Your task to perform on an android device: Open the Play Movies app and select the watchlist tab. Image 0: 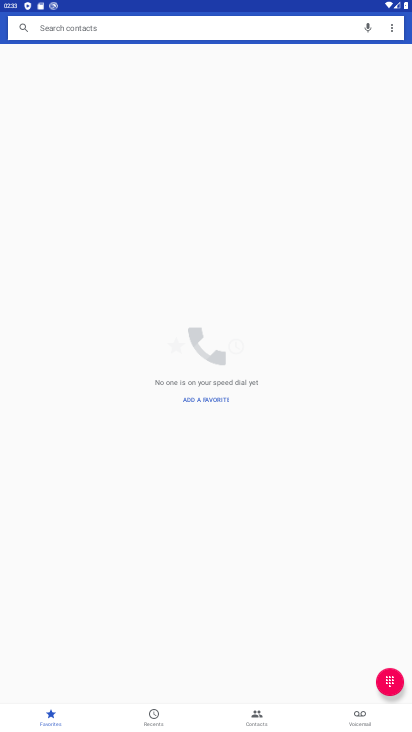
Step 0: press home button
Your task to perform on an android device: Open the Play Movies app and select the watchlist tab. Image 1: 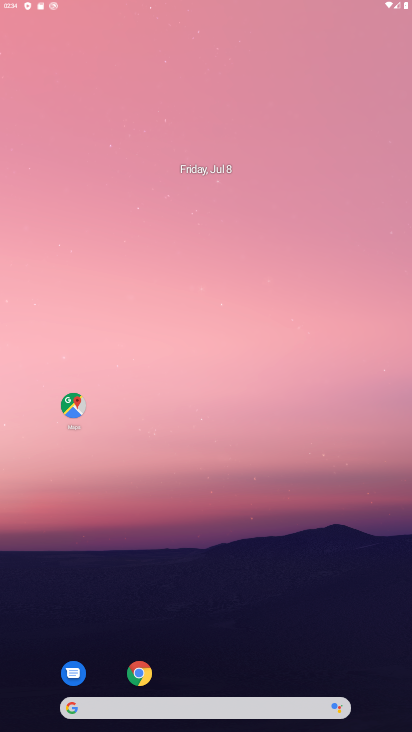
Step 1: drag from (226, 614) to (264, 107)
Your task to perform on an android device: Open the Play Movies app and select the watchlist tab. Image 2: 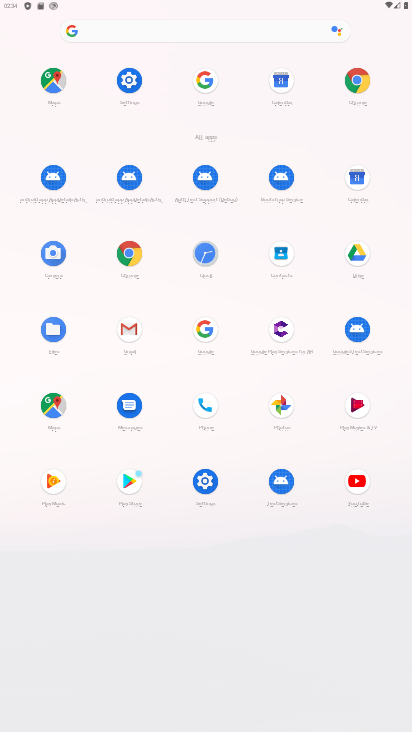
Step 2: click (345, 401)
Your task to perform on an android device: Open the Play Movies app and select the watchlist tab. Image 3: 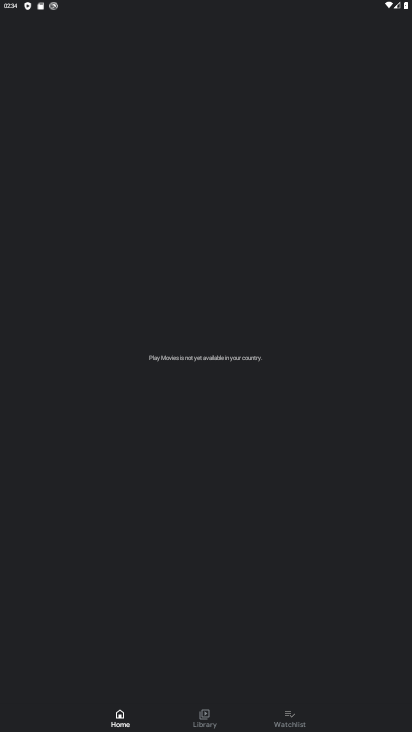
Step 3: click (364, 703)
Your task to perform on an android device: Open the Play Movies app and select the watchlist tab. Image 4: 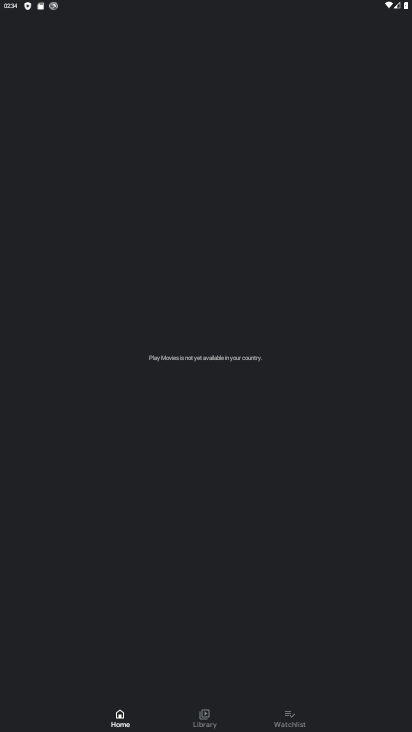
Step 4: click (301, 711)
Your task to perform on an android device: Open the Play Movies app and select the watchlist tab. Image 5: 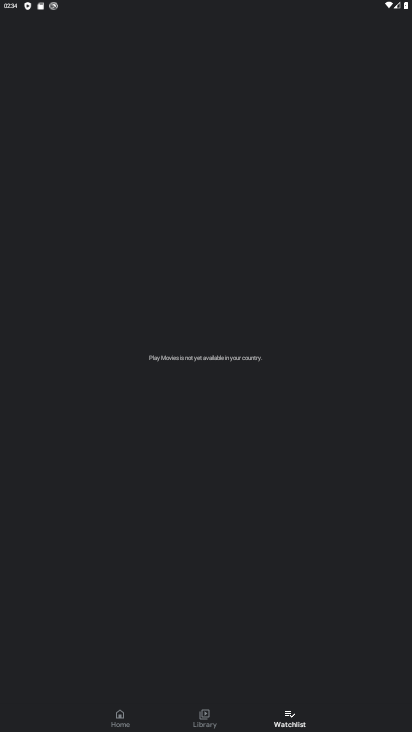
Step 5: task complete